Your task to perform on an android device: check data usage Image 0: 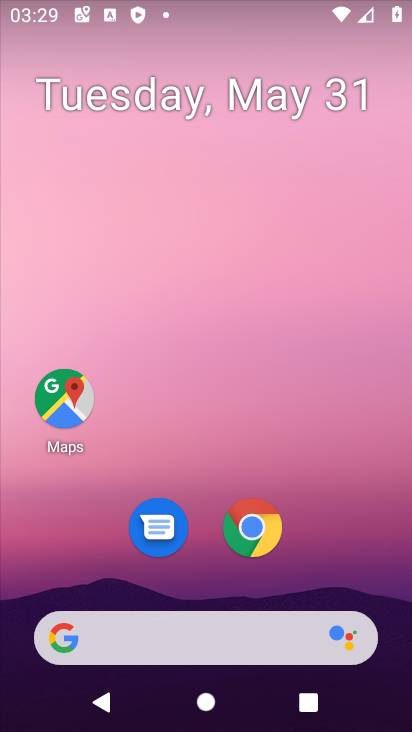
Step 0: drag from (397, 633) to (305, 34)
Your task to perform on an android device: check data usage Image 1: 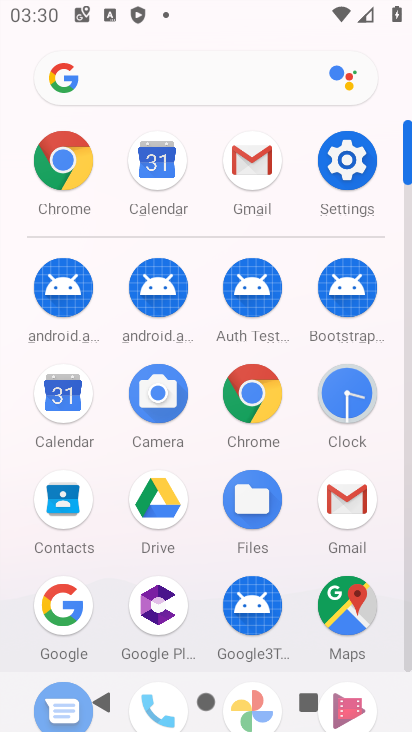
Step 1: click (407, 649)
Your task to perform on an android device: check data usage Image 2: 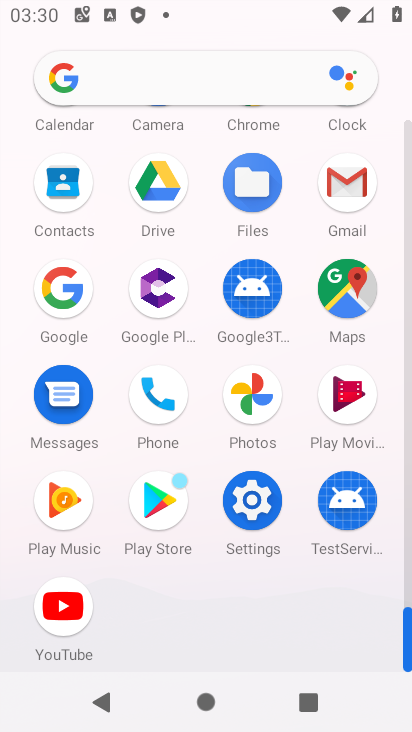
Step 2: click (250, 496)
Your task to perform on an android device: check data usage Image 3: 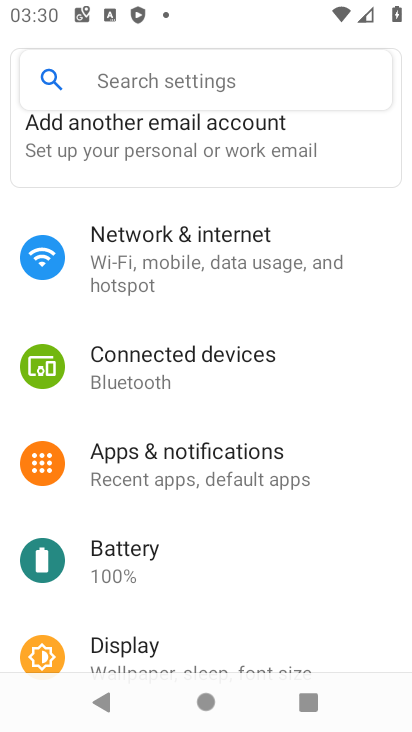
Step 3: click (127, 252)
Your task to perform on an android device: check data usage Image 4: 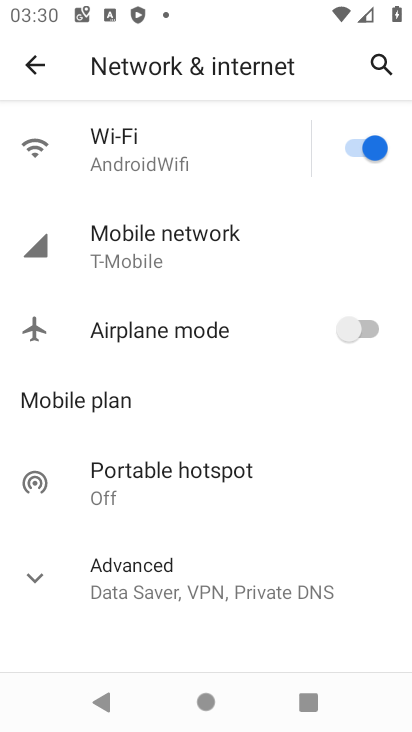
Step 4: click (161, 239)
Your task to perform on an android device: check data usage Image 5: 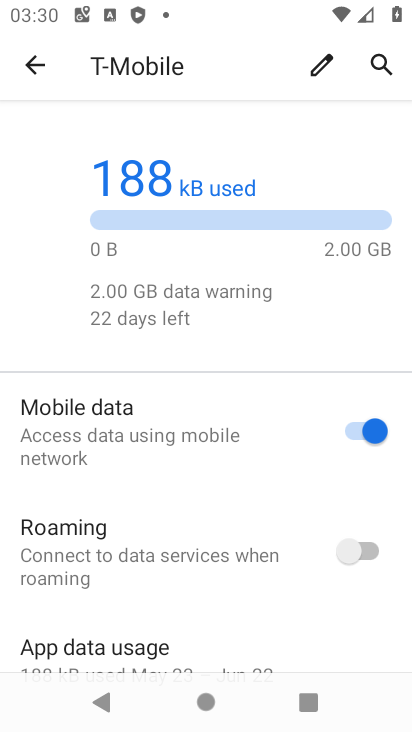
Step 5: task complete